Your task to perform on an android device: search for starred emails in the gmail app Image 0: 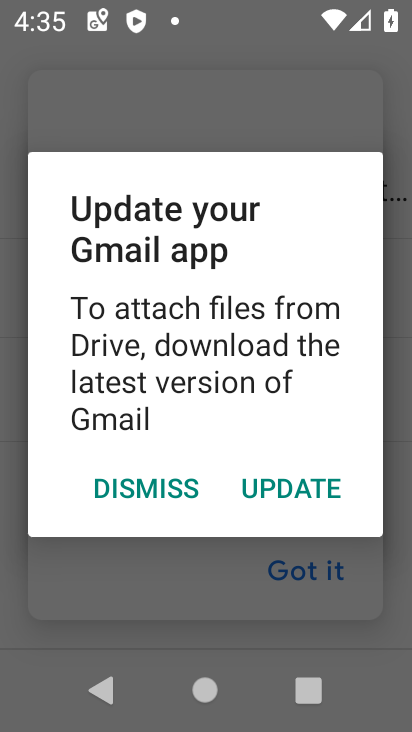
Step 0: press home button
Your task to perform on an android device: search for starred emails in the gmail app Image 1: 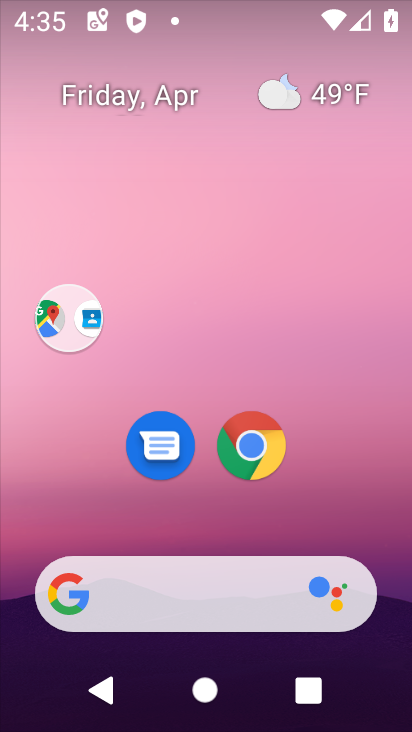
Step 1: drag from (334, 469) to (324, 92)
Your task to perform on an android device: search for starred emails in the gmail app Image 2: 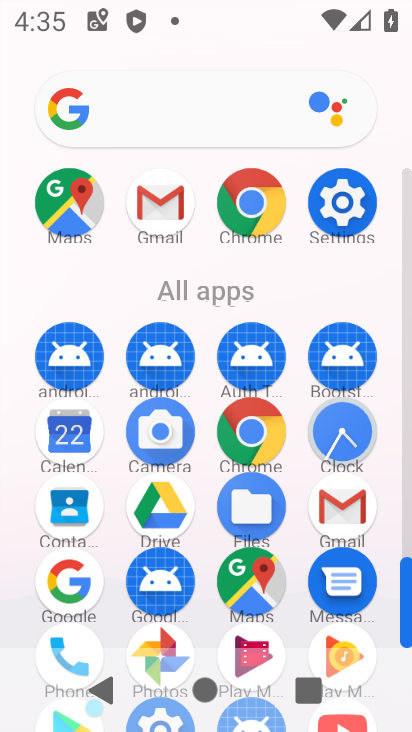
Step 2: click (347, 505)
Your task to perform on an android device: search for starred emails in the gmail app Image 3: 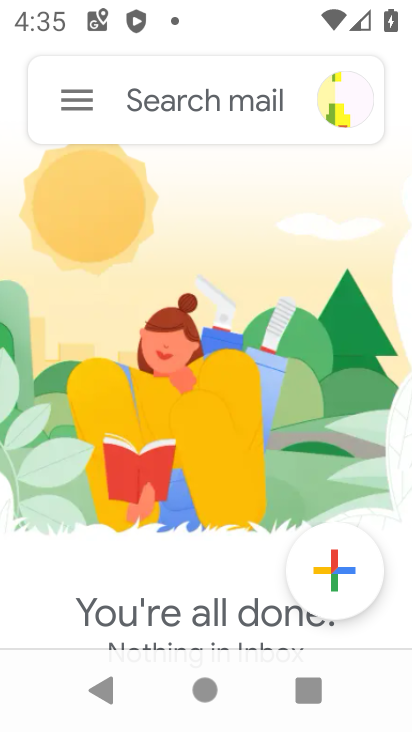
Step 3: click (62, 79)
Your task to perform on an android device: search for starred emails in the gmail app Image 4: 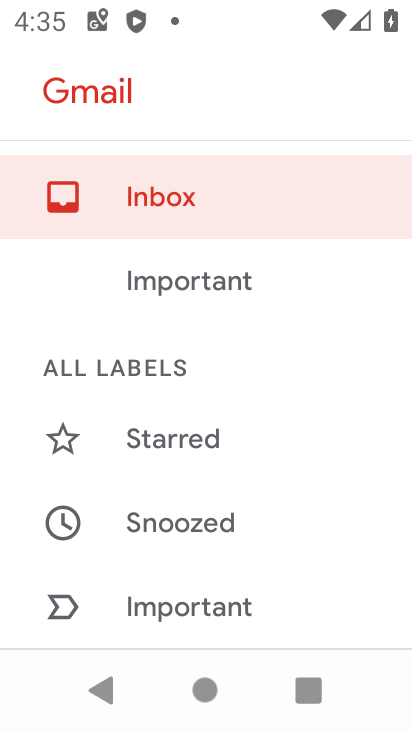
Step 4: drag from (198, 455) to (255, 247)
Your task to perform on an android device: search for starred emails in the gmail app Image 5: 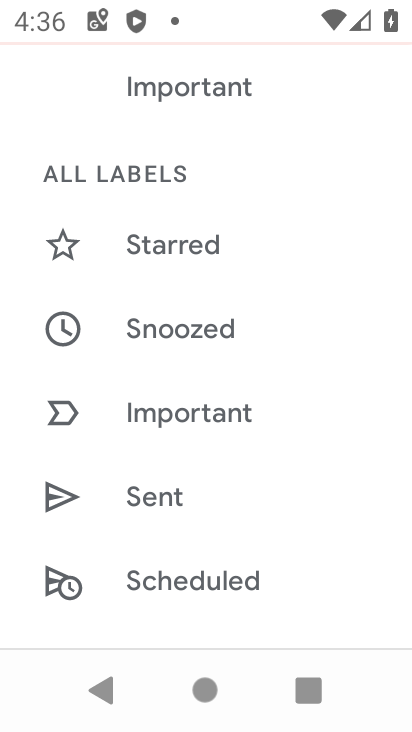
Step 5: click (158, 228)
Your task to perform on an android device: search for starred emails in the gmail app Image 6: 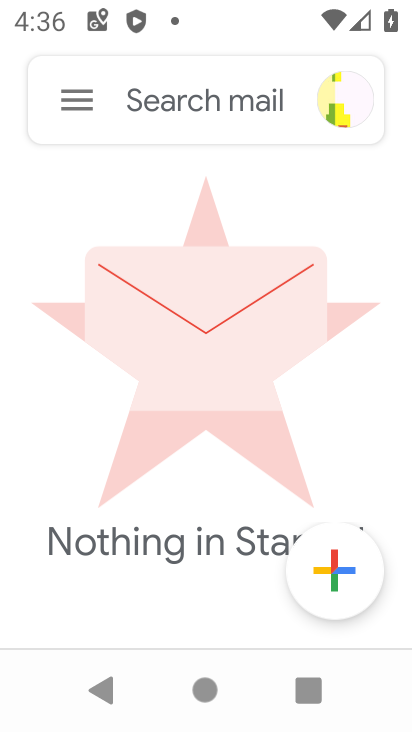
Step 6: task complete